Your task to perform on an android device: Go to Maps Image 0: 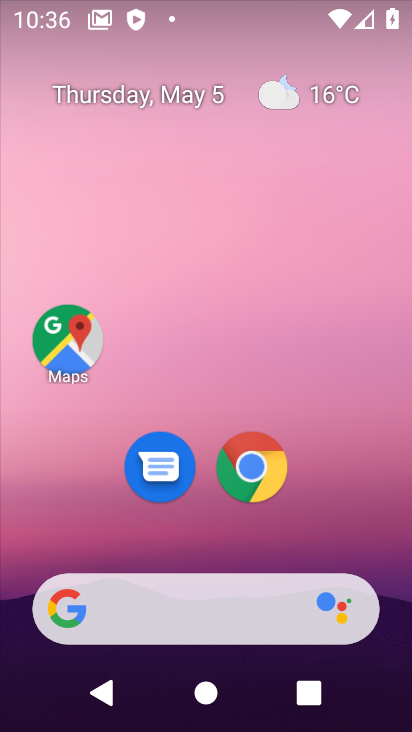
Step 0: click (67, 370)
Your task to perform on an android device: Go to Maps Image 1: 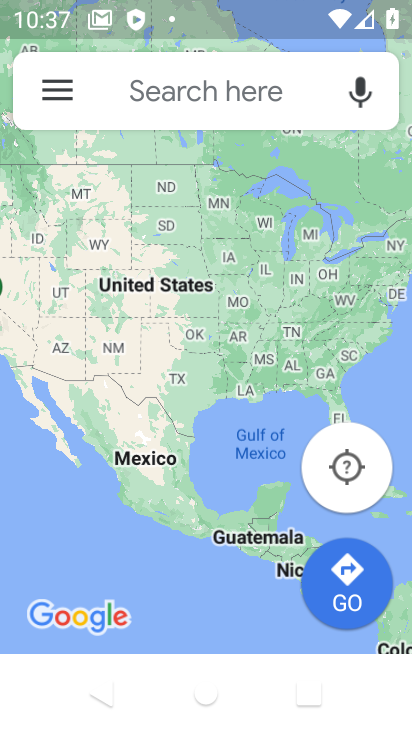
Step 1: task complete